Your task to perform on an android device: Turn on the flashlight Image 0: 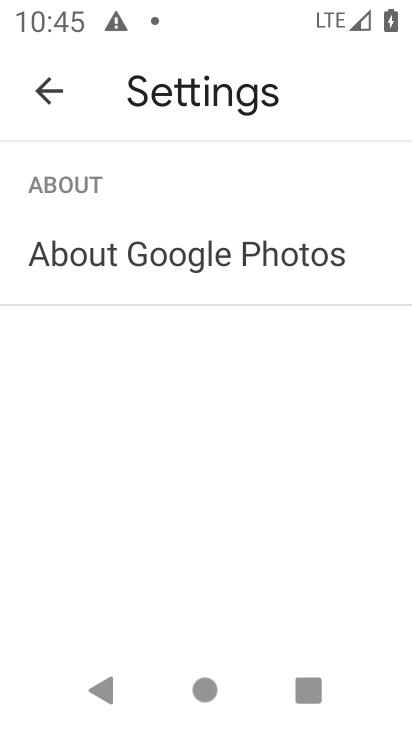
Step 0: press back button
Your task to perform on an android device: Turn on the flashlight Image 1: 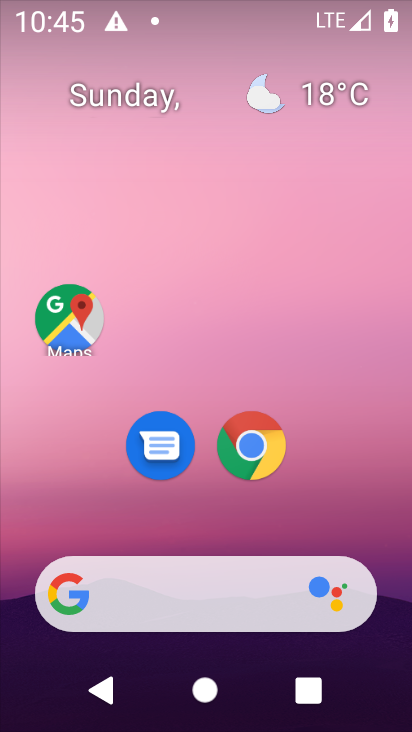
Step 1: task complete